Your task to perform on an android device: find which apps use the phone's location Image 0: 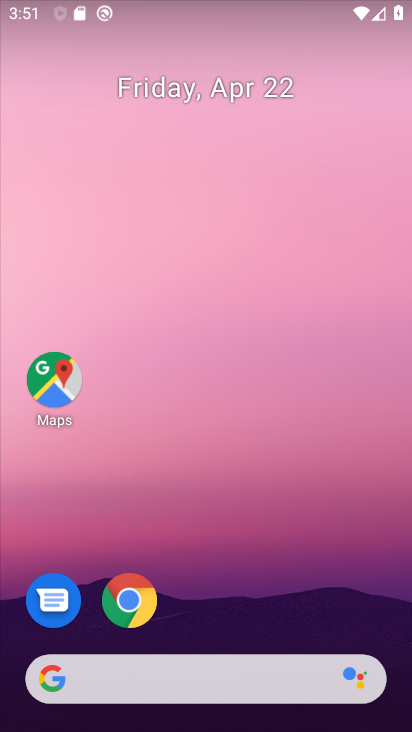
Step 0: drag from (262, 536) to (297, 6)
Your task to perform on an android device: find which apps use the phone's location Image 1: 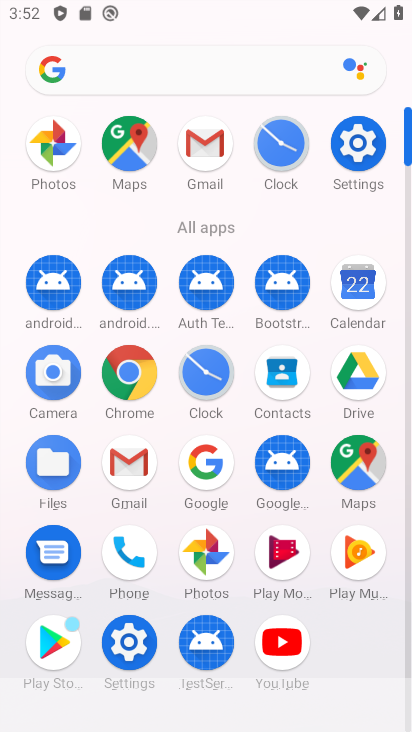
Step 1: click (356, 145)
Your task to perform on an android device: find which apps use the phone's location Image 2: 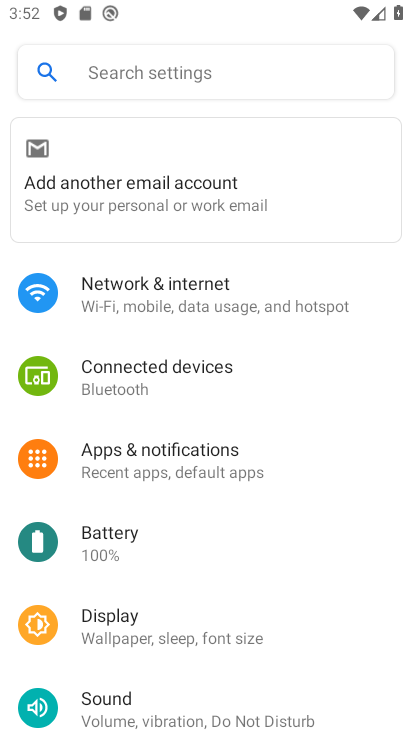
Step 2: drag from (196, 558) to (247, 372)
Your task to perform on an android device: find which apps use the phone's location Image 3: 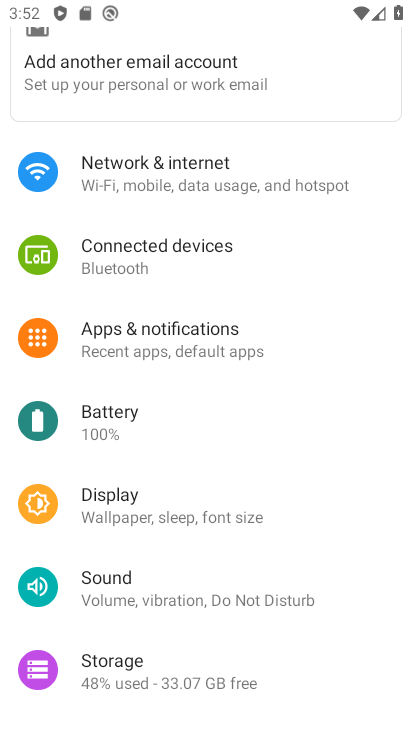
Step 3: drag from (175, 544) to (212, 410)
Your task to perform on an android device: find which apps use the phone's location Image 4: 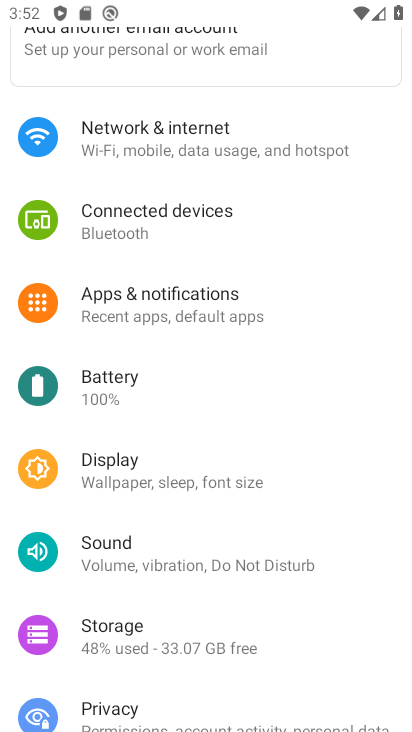
Step 4: drag from (200, 508) to (252, 374)
Your task to perform on an android device: find which apps use the phone's location Image 5: 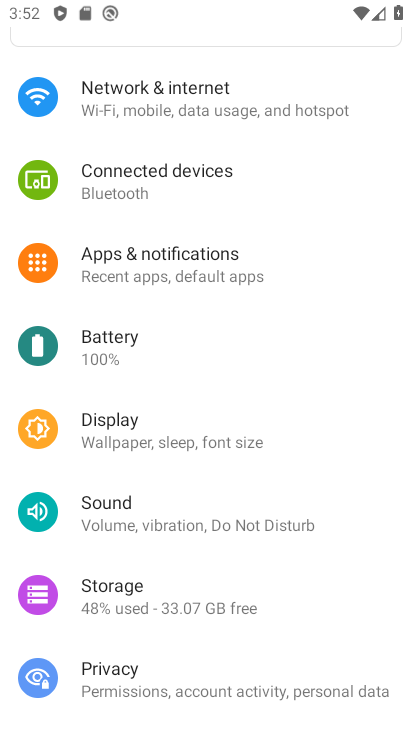
Step 5: drag from (183, 522) to (216, 444)
Your task to perform on an android device: find which apps use the phone's location Image 6: 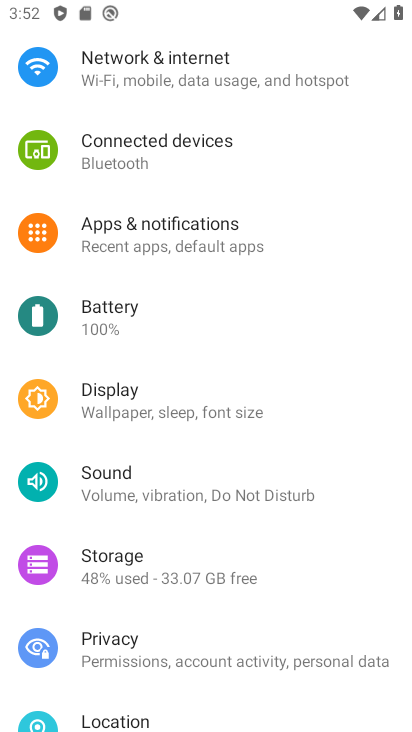
Step 6: drag from (169, 539) to (238, 432)
Your task to perform on an android device: find which apps use the phone's location Image 7: 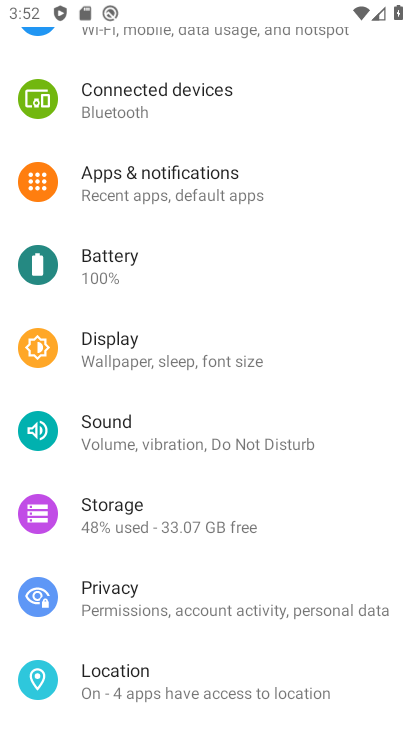
Step 7: drag from (193, 489) to (254, 391)
Your task to perform on an android device: find which apps use the phone's location Image 8: 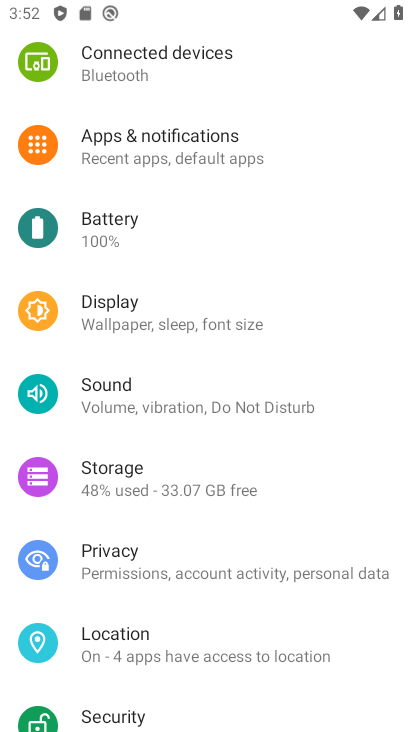
Step 8: drag from (185, 522) to (251, 417)
Your task to perform on an android device: find which apps use the phone's location Image 9: 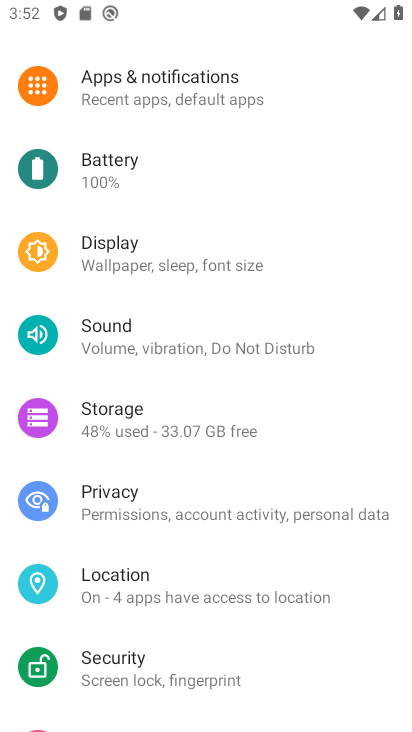
Step 9: drag from (194, 542) to (255, 414)
Your task to perform on an android device: find which apps use the phone's location Image 10: 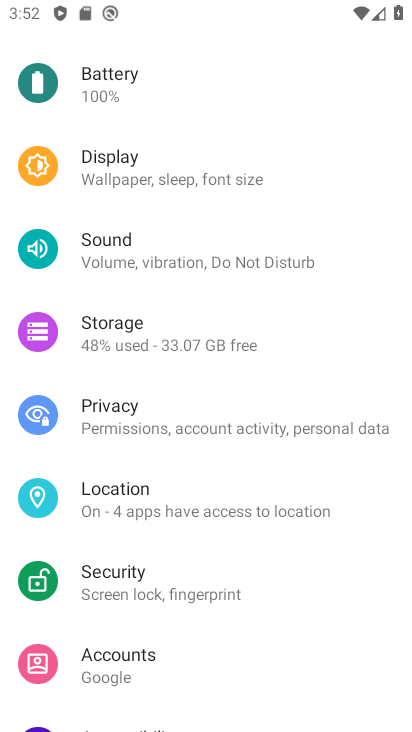
Step 10: click (213, 508)
Your task to perform on an android device: find which apps use the phone's location Image 11: 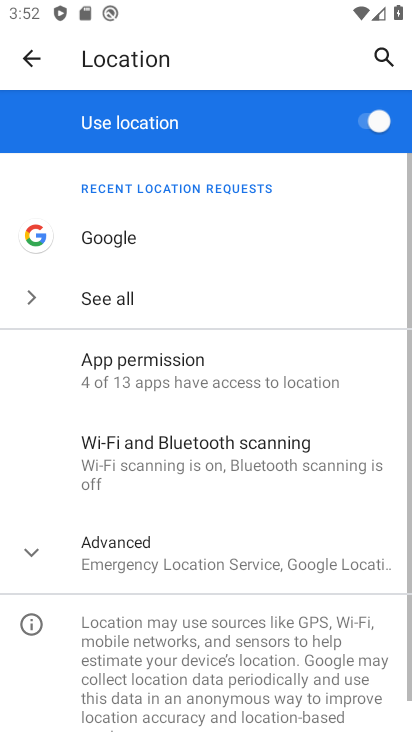
Step 11: click (181, 362)
Your task to perform on an android device: find which apps use the phone's location Image 12: 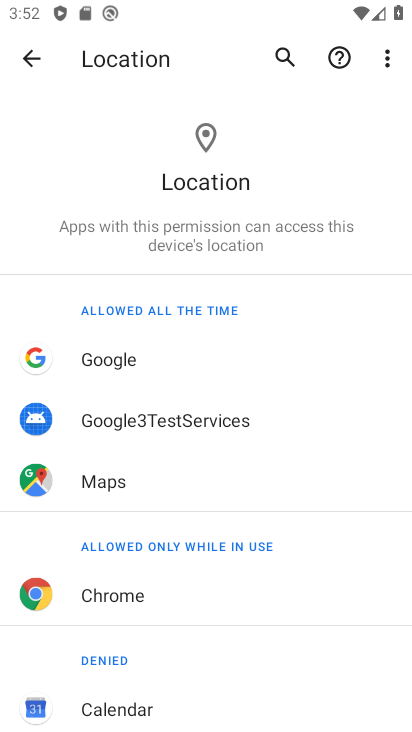
Step 12: click (127, 485)
Your task to perform on an android device: find which apps use the phone's location Image 13: 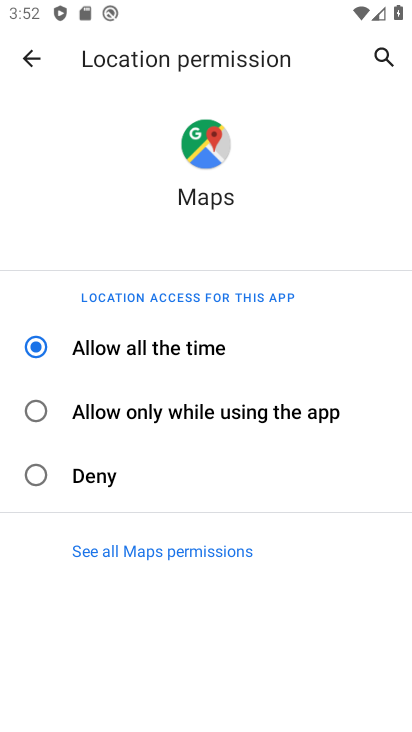
Step 13: task complete